Your task to perform on an android device: Open maps Image 0: 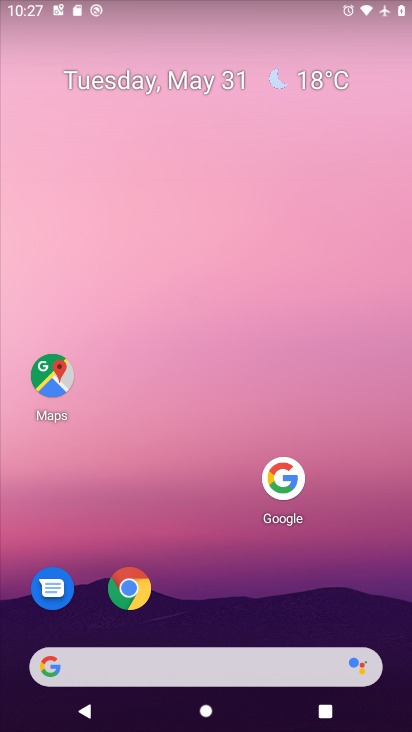
Step 0: press home button
Your task to perform on an android device: Open maps Image 1: 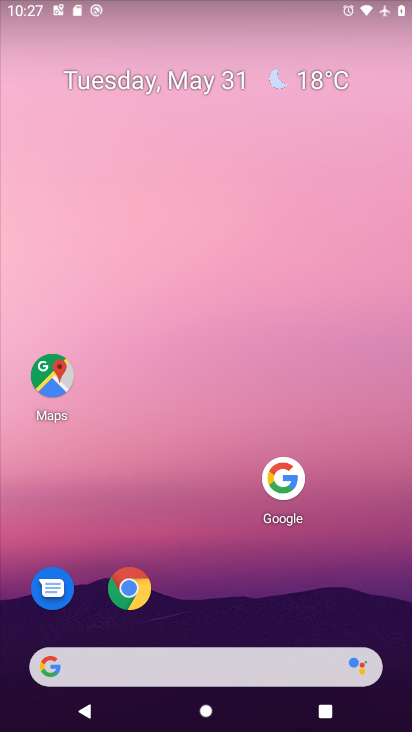
Step 1: click (55, 384)
Your task to perform on an android device: Open maps Image 2: 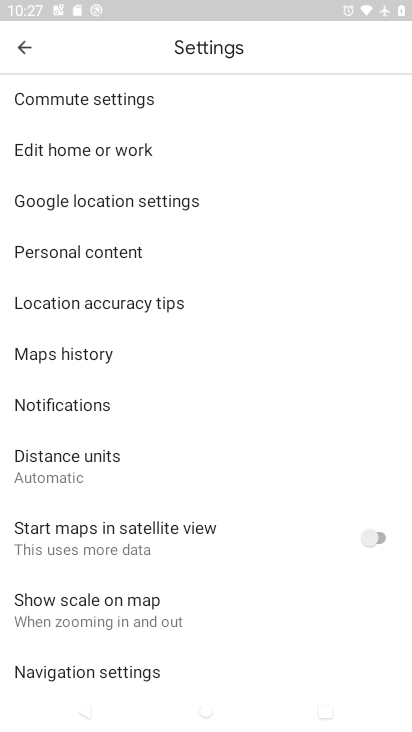
Step 2: click (24, 51)
Your task to perform on an android device: Open maps Image 3: 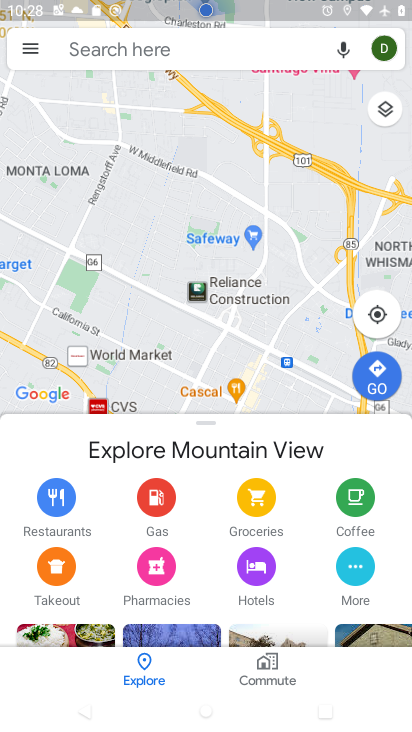
Step 3: task complete